Your task to perform on an android device: open app "Google Translate" Image 0: 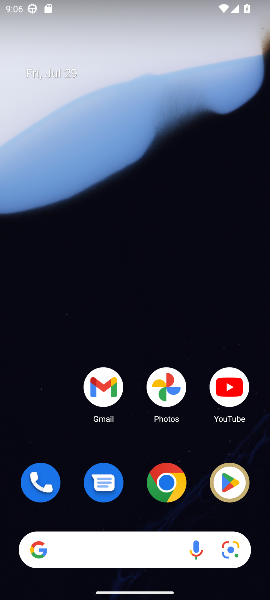
Step 0: drag from (154, 584) to (117, 44)
Your task to perform on an android device: open app "Google Translate" Image 1: 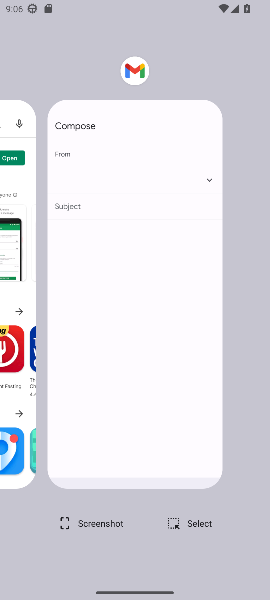
Step 1: click (10, 276)
Your task to perform on an android device: open app "Google Translate" Image 2: 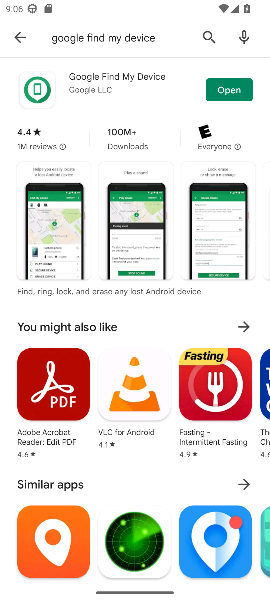
Step 2: click (209, 37)
Your task to perform on an android device: open app "Google Translate" Image 3: 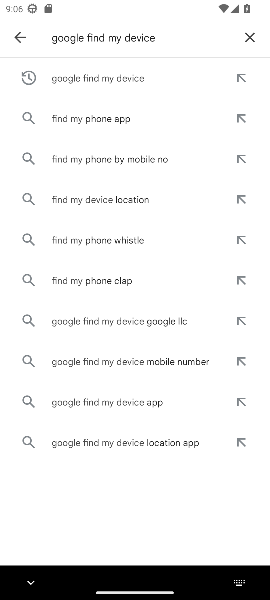
Step 3: click (253, 34)
Your task to perform on an android device: open app "Google Translate" Image 4: 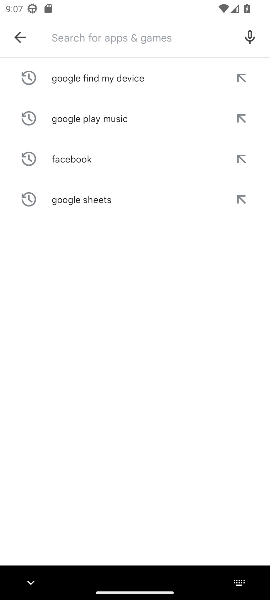
Step 4: type "Google Translate"
Your task to perform on an android device: open app "Google Translate" Image 5: 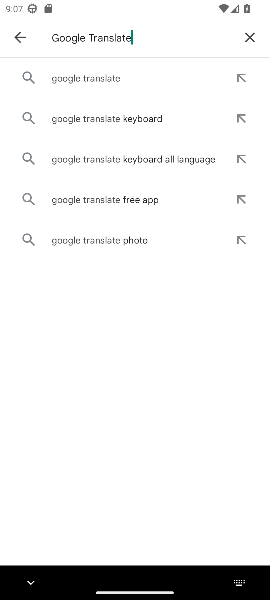
Step 5: click (85, 79)
Your task to perform on an android device: open app "Google Translate" Image 6: 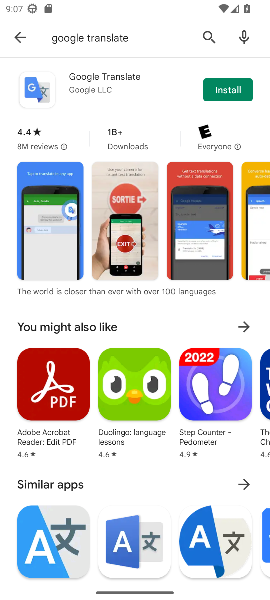
Step 6: task complete